Your task to perform on an android device: View the shopping cart on costco.com. Search for "macbook pro 13 inch" on costco.com, select the first entry, add it to the cart, then select checkout. Image 0: 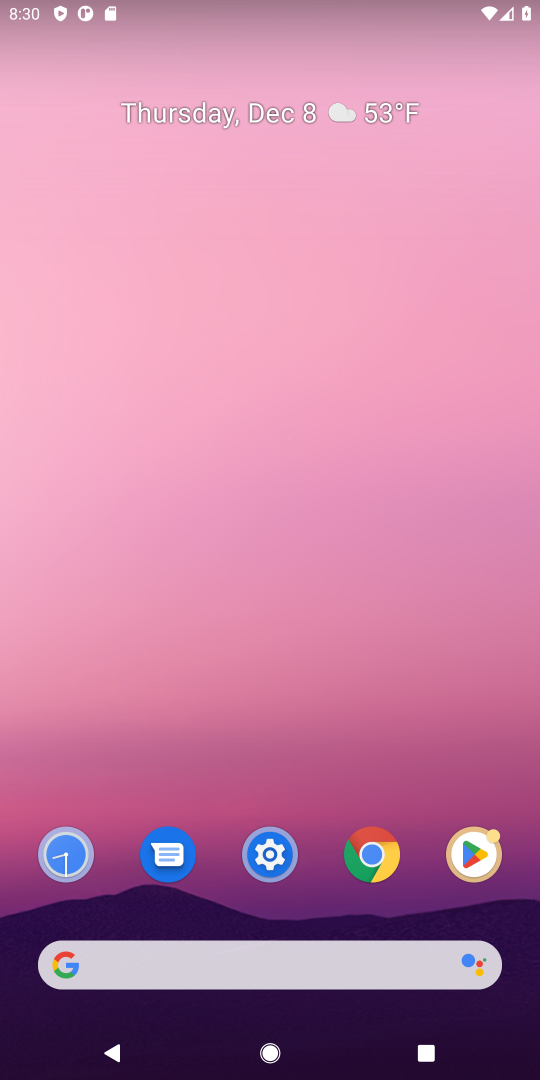
Step 0: press home button
Your task to perform on an android device: View the shopping cart on costco.com. Search for "macbook pro 13 inch" on costco.com, select the first entry, add it to the cart, then select checkout. Image 1: 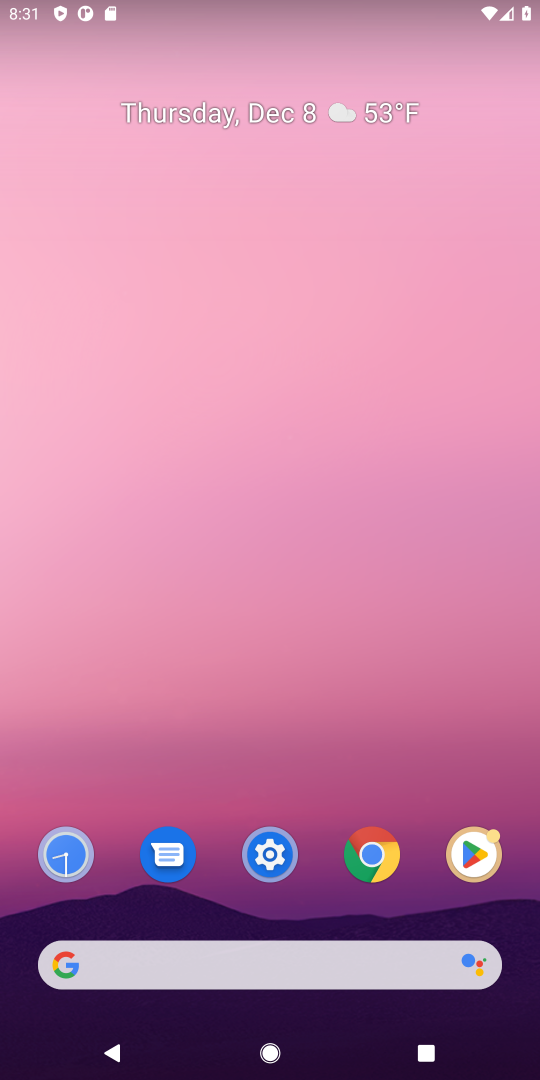
Step 1: click (84, 971)
Your task to perform on an android device: View the shopping cart on costco.com. Search for "macbook pro 13 inch" on costco.com, select the first entry, add it to the cart, then select checkout. Image 2: 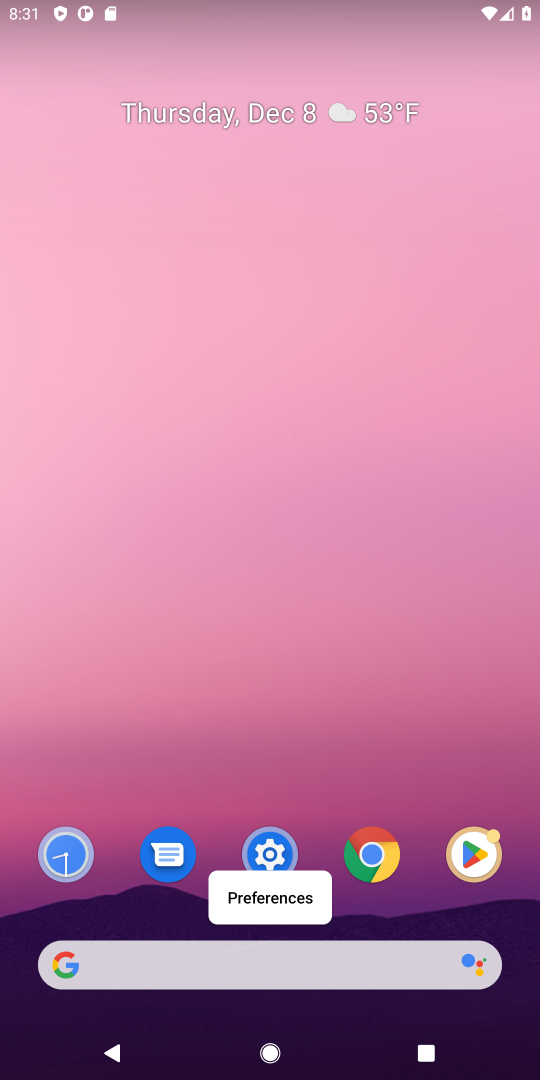
Step 2: click (98, 967)
Your task to perform on an android device: View the shopping cart on costco.com. Search for "macbook pro 13 inch" on costco.com, select the first entry, add it to the cart, then select checkout. Image 3: 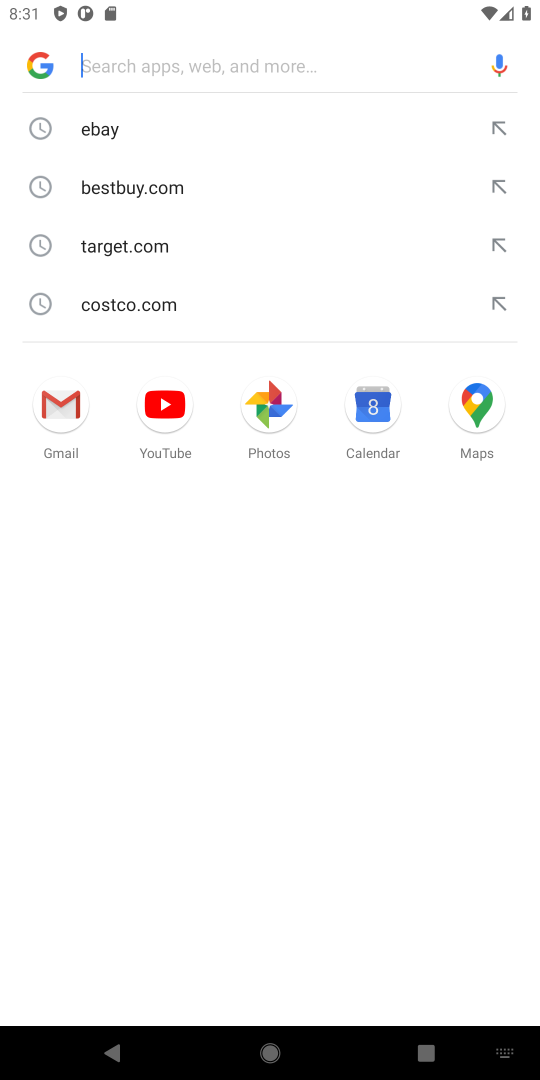
Step 3: type "costco.com"
Your task to perform on an android device: View the shopping cart on costco.com. Search for "macbook pro 13 inch" on costco.com, select the first entry, add it to the cart, then select checkout. Image 4: 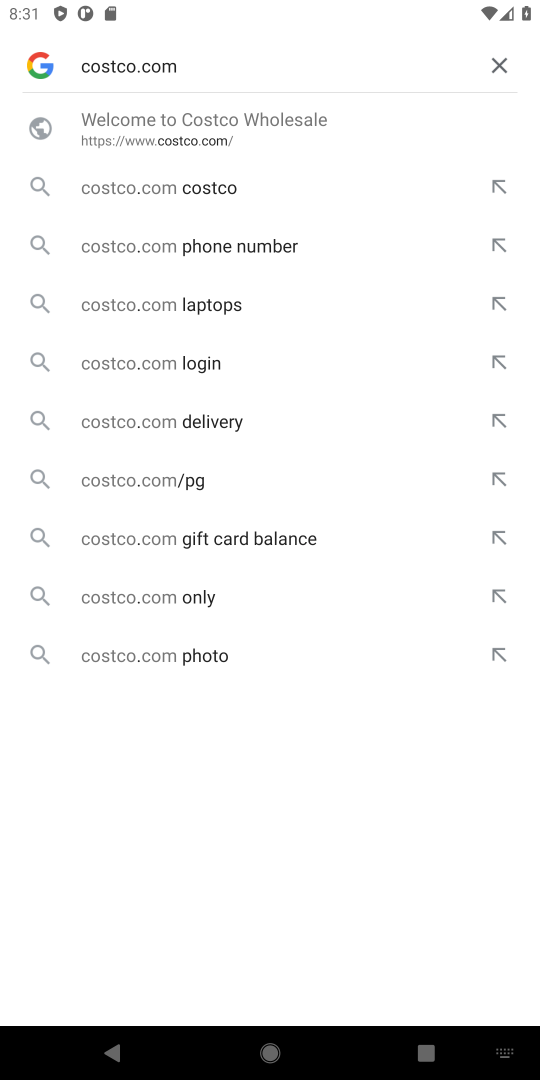
Step 4: press enter
Your task to perform on an android device: View the shopping cart on costco.com. Search for "macbook pro 13 inch" on costco.com, select the first entry, add it to the cart, then select checkout. Image 5: 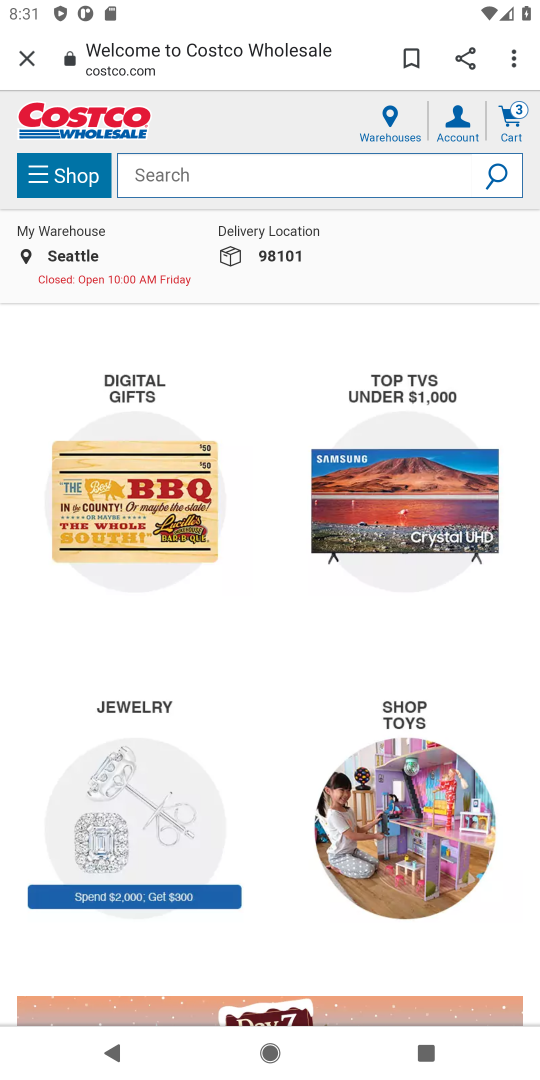
Step 5: click (510, 119)
Your task to perform on an android device: View the shopping cart on costco.com. Search for "macbook pro 13 inch" on costco.com, select the first entry, add it to the cart, then select checkout. Image 6: 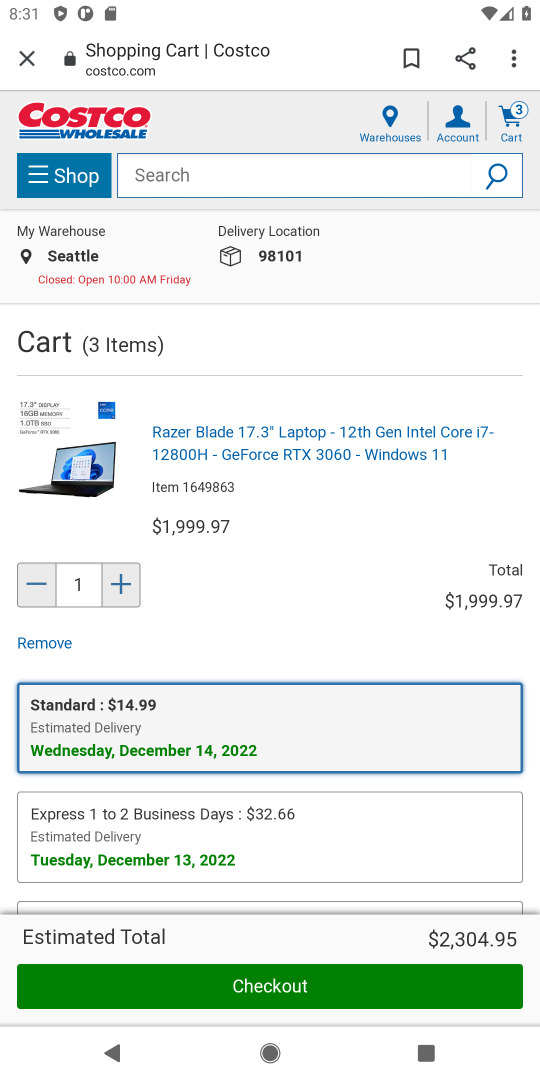
Step 6: click (204, 171)
Your task to perform on an android device: View the shopping cart on costco.com. Search for "macbook pro 13 inch" on costco.com, select the first entry, add it to the cart, then select checkout. Image 7: 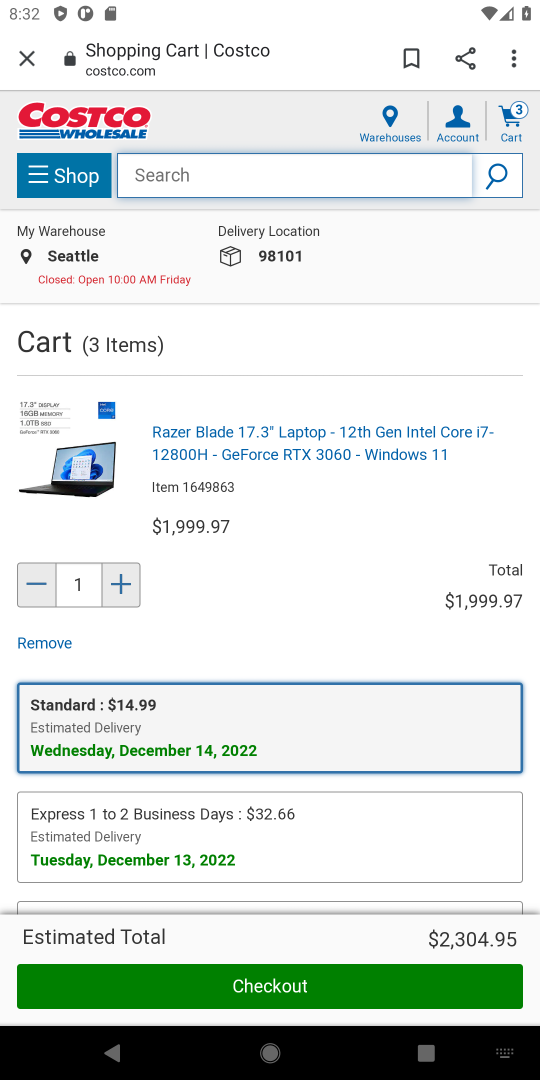
Step 7: click (204, 178)
Your task to perform on an android device: View the shopping cart on costco.com. Search for "macbook pro 13 inch" on costco.com, select the first entry, add it to the cart, then select checkout. Image 8: 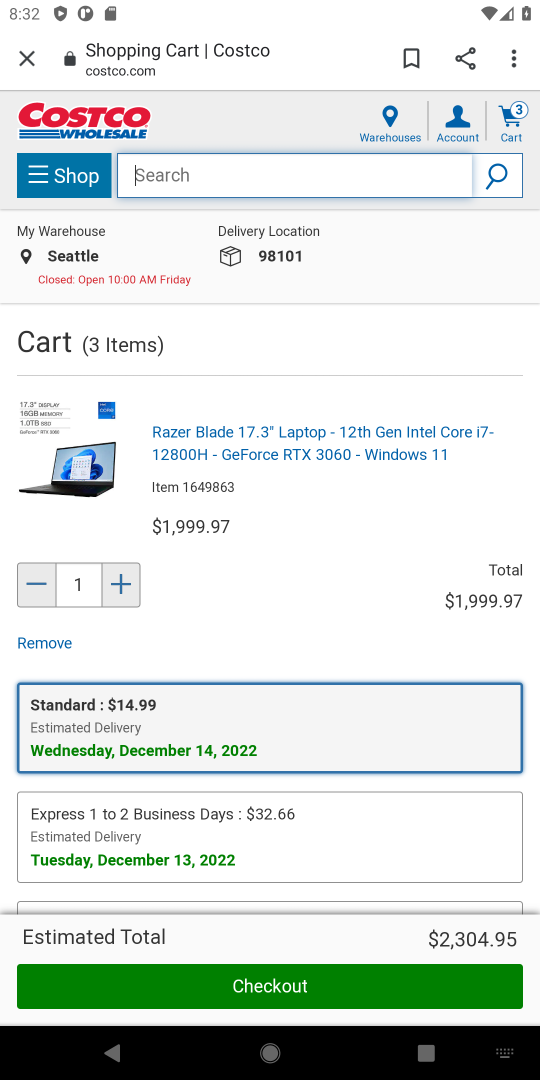
Step 8: click (204, 178)
Your task to perform on an android device: View the shopping cart on costco.com. Search for "macbook pro 13 inch" on costco.com, select the first entry, add it to the cart, then select checkout. Image 9: 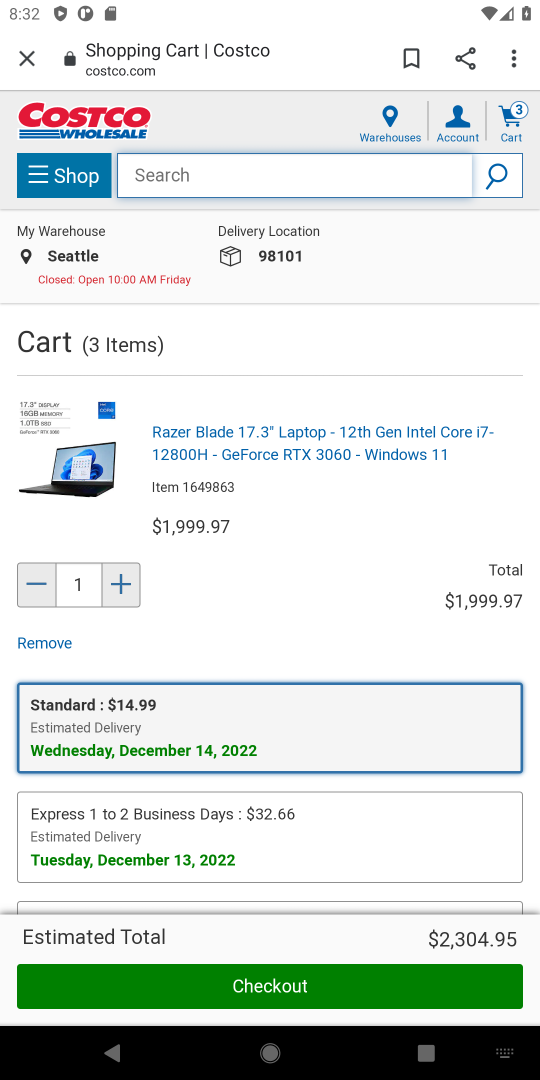
Step 9: click (204, 178)
Your task to perform on an android device: View the shopping cart on costco.com. Search for "macbook pro 13 inch" on costco.com, select the first entry, add it to the cart, then select checkout. Image 10: 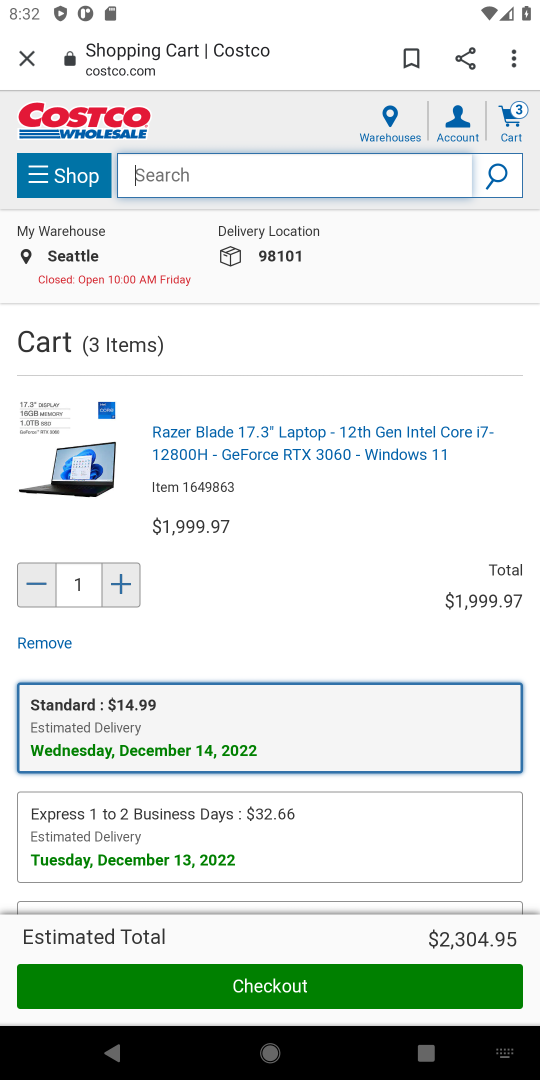
Step 10: click (208, 171)
Your task to perform on an android device: View the shopping cart on costco.com. Search for "macbook pro 13 inch" on costco.com, select the first entry, add it to the cart, then select checkout. Image 11: 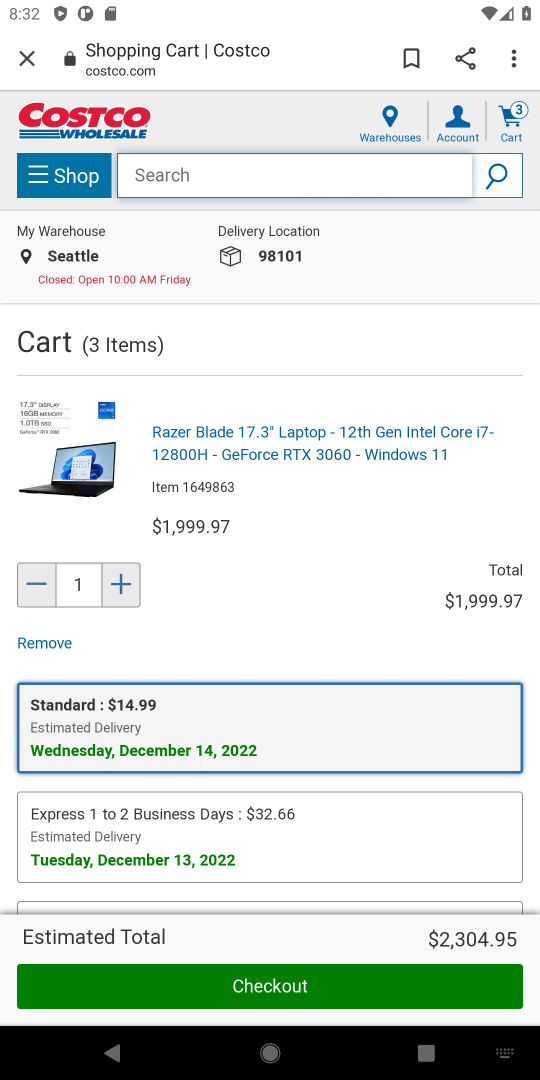
Step 11: click (208, 171)
Your task to perform on an android device: View the shopping cart on costco.com. Search for "macbook pro 13 inch" on costco.com, select the first entry, add it to the cart, then select checkout. Image 12: 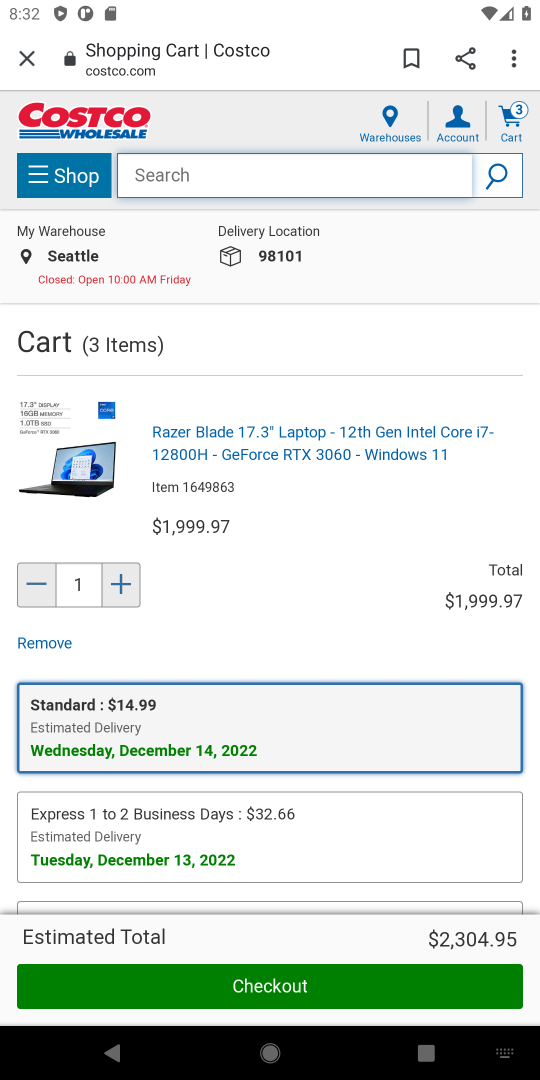
Step 12: press enter
Your task to perform on an android device: View the shopping cart on costco.com. Search for "macbook pro 13 inch" on costco.com, select the first entry, add it to the cart, then select checkout. Image 13: 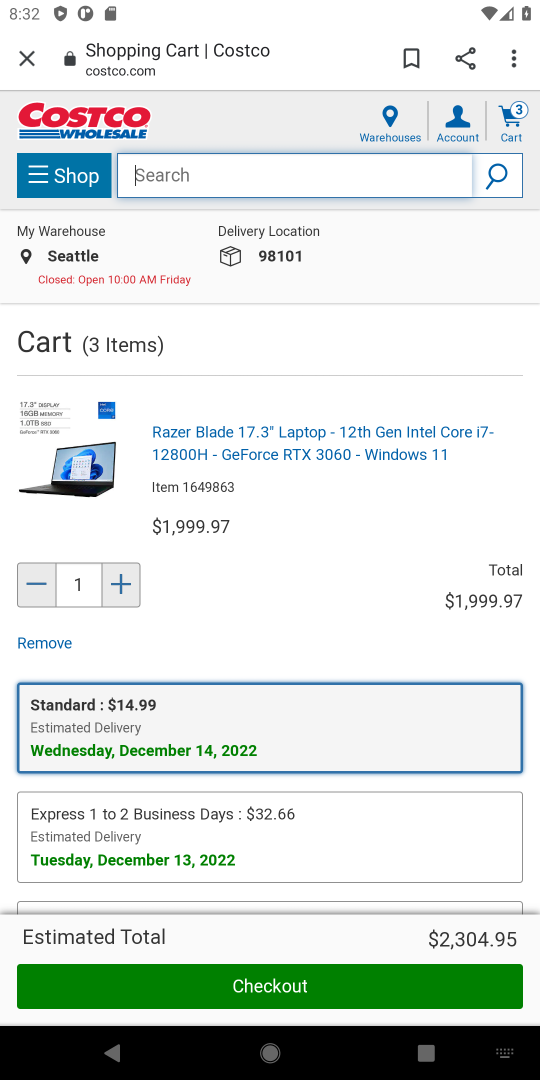
Step 13: type "macbook pro 13 inch"
Your task to perform on an android device: View the shopping cart on costco.com. Search for "macbook pro 13 inch" on costco.com, select the first entry, add it to the cart, then select checkout. Image 14: 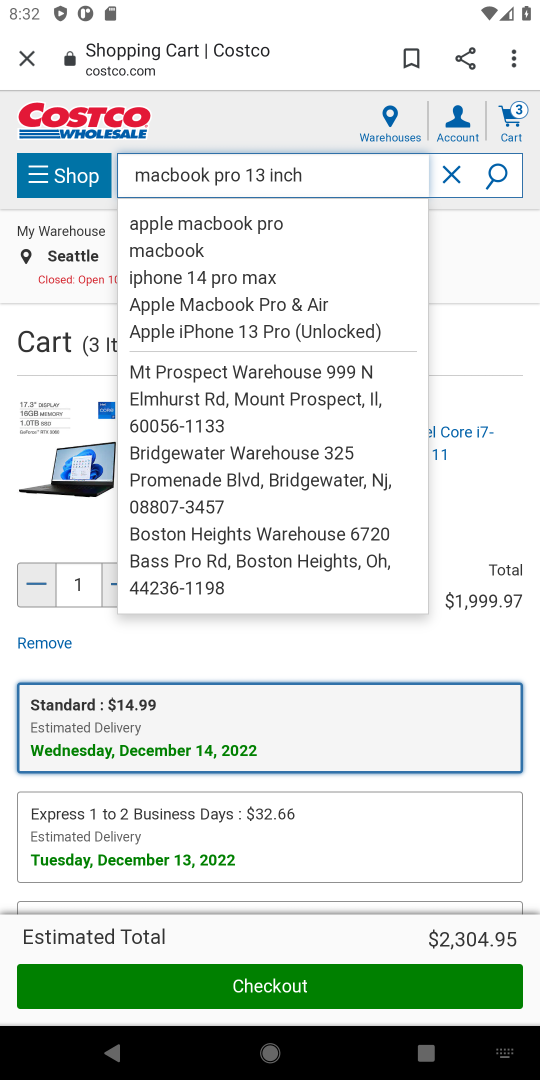
Step 14: press enter
Your task to perform on an android device: View the shopping cart on costco.com. Search for "macbook pro 13 inch" on costco.com, select the first entry, add it to the cart, then select checkout. Image 15: 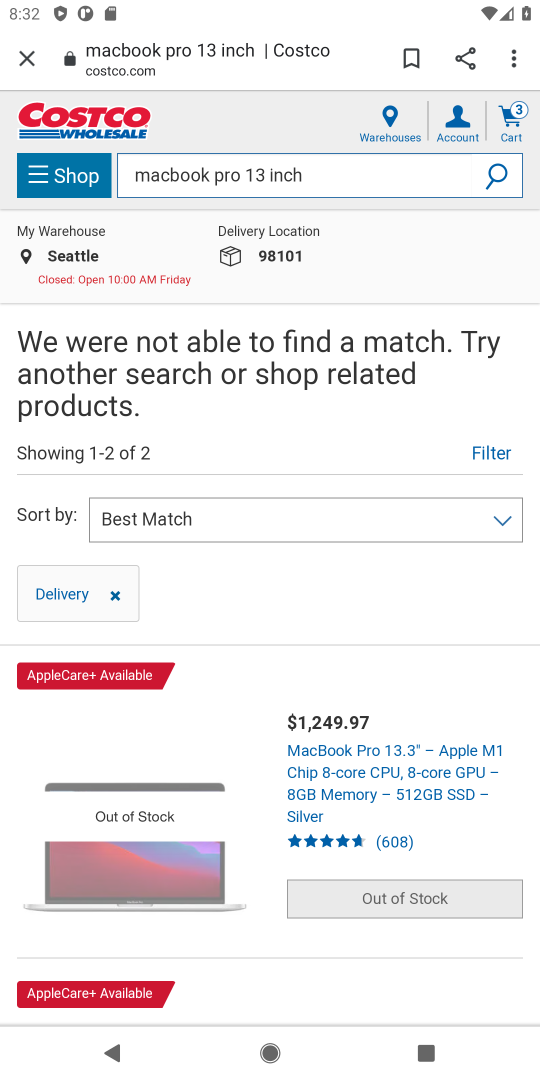
Step 15: task complete